Your task to perform on an android device: Search for seafood restaurants on Google Maps Image 0: 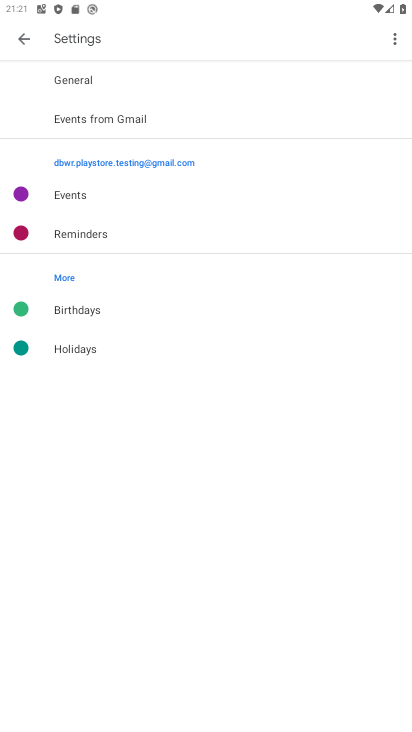
Step 0: press back button
Your task to perform on an android device: Search for seafood restaurants on Google Maps Image 1: 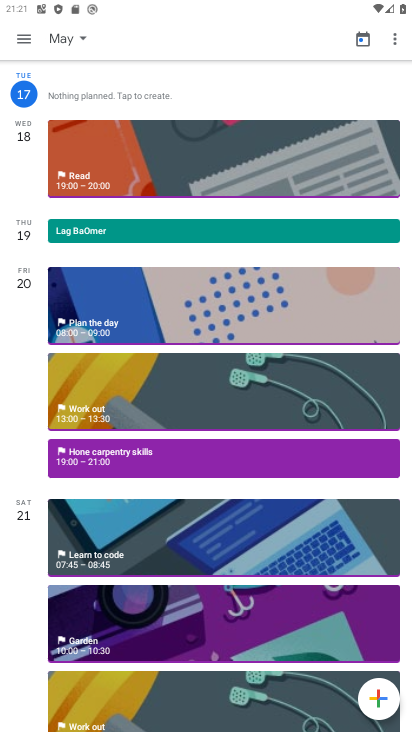
Step 1: press back button
Your task to perform on an android device: Search for seafood restaurants on Google Maps Image 2: 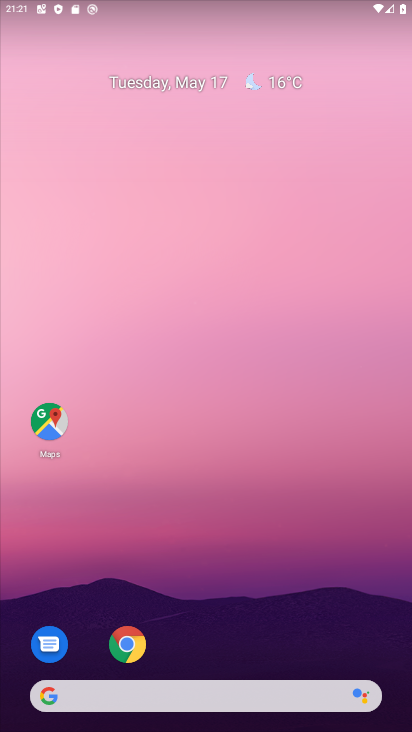
Step 2: click (46, 424)
Your task to perform on an android device: Search for seafood restaurants on Google Maps Image 3: 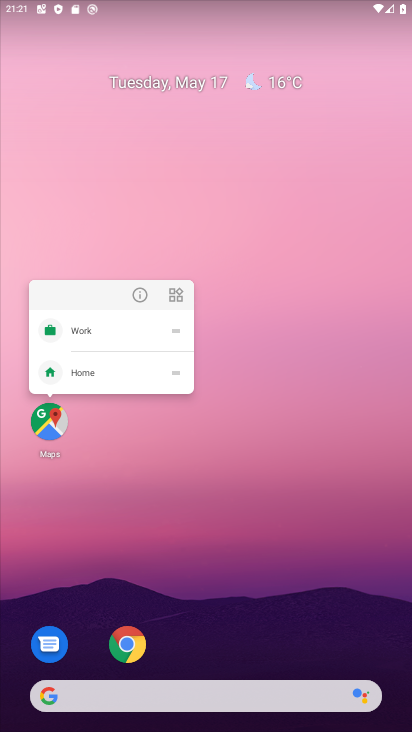
Step 3: click (54, 429)
Your task to perform on an android device: Search for seafood restaurants on Google Maps Image 4: 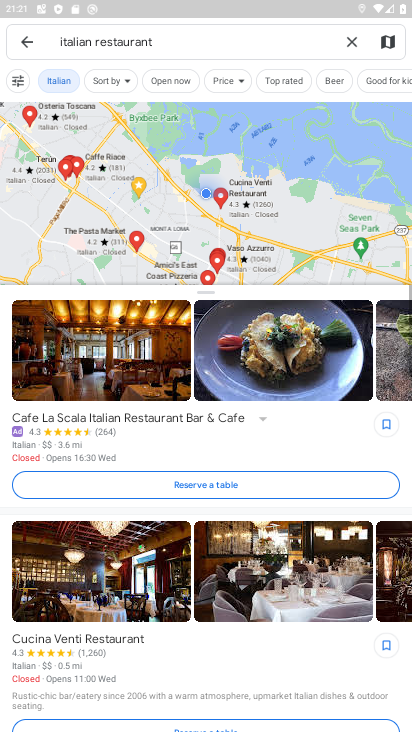
Step 4: click (352, 45)
Your task to perform on an android device: Search for seafood restaurants on Google Maps Image 5: 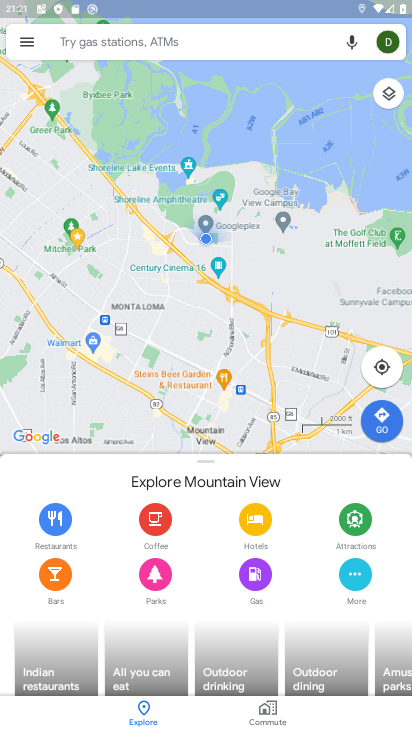
Step 5: click (142, 41)
Your task to perform on an android device: Search for seafood restaurants on Google Maps Image 6: 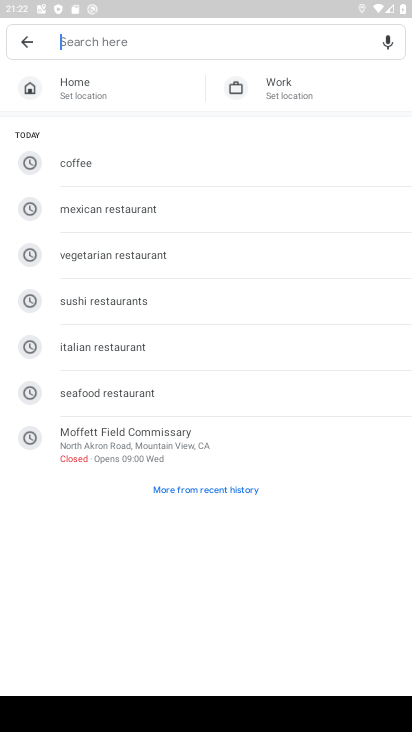
Step 6: click (87, 396)
Your task to perform on an android device: Search for seafood restaurants on Google Maps Image 7: 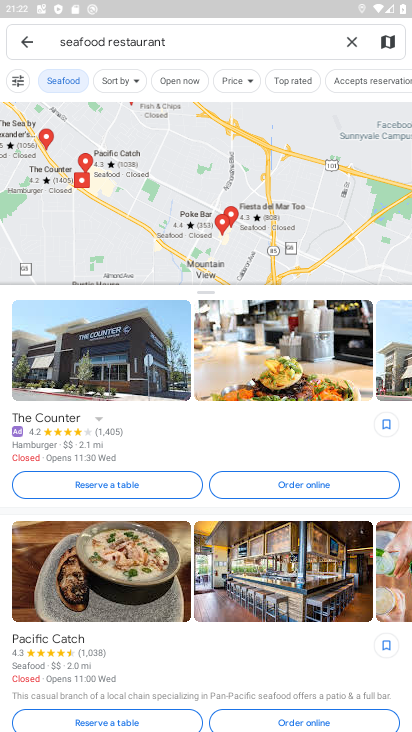
Step 7: task complete